Your task to perform on an android device: open app "Move to iOS" (install if not already installed), go to login, and select forgot password Image 0: 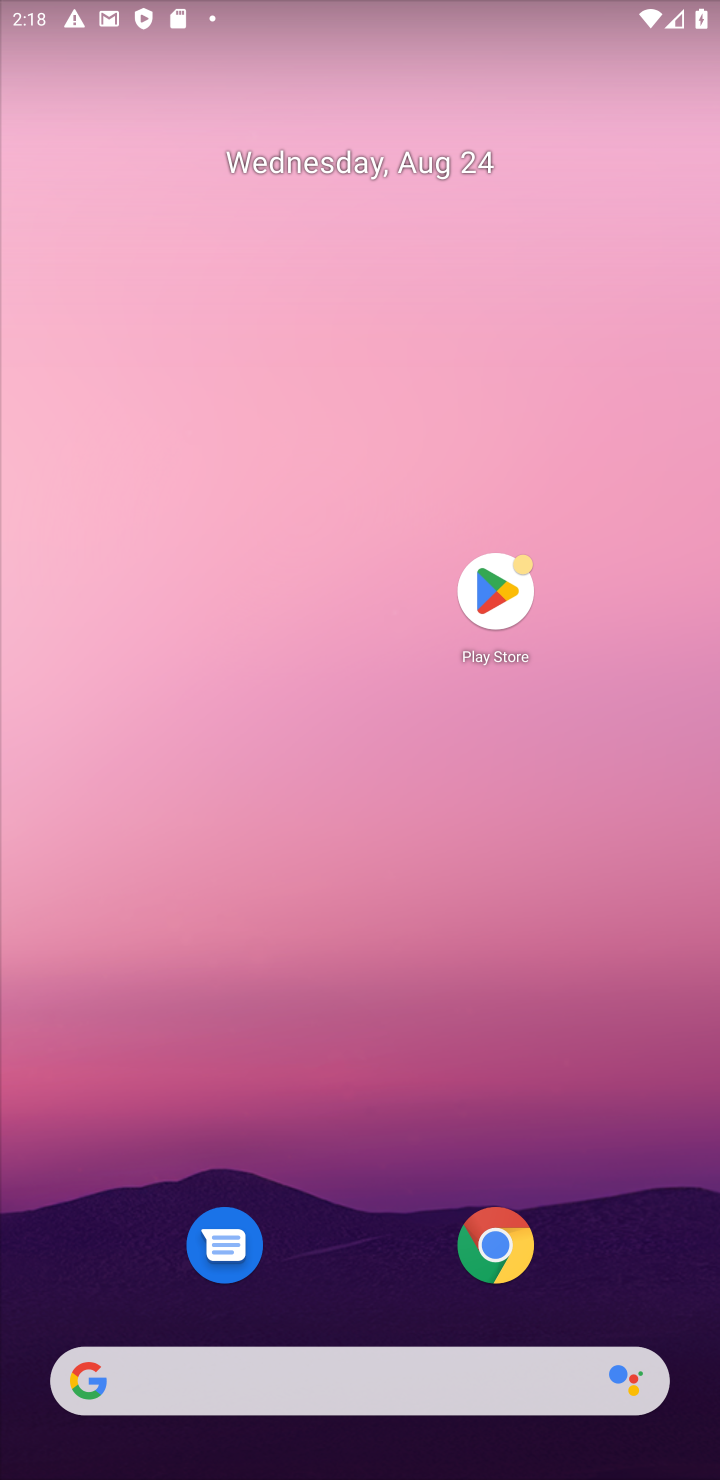
Step 0: press home button
Your task to perform on an android device: open app "Move to iOS" (install if not already installed), go to login, and select forgot password Image 1: 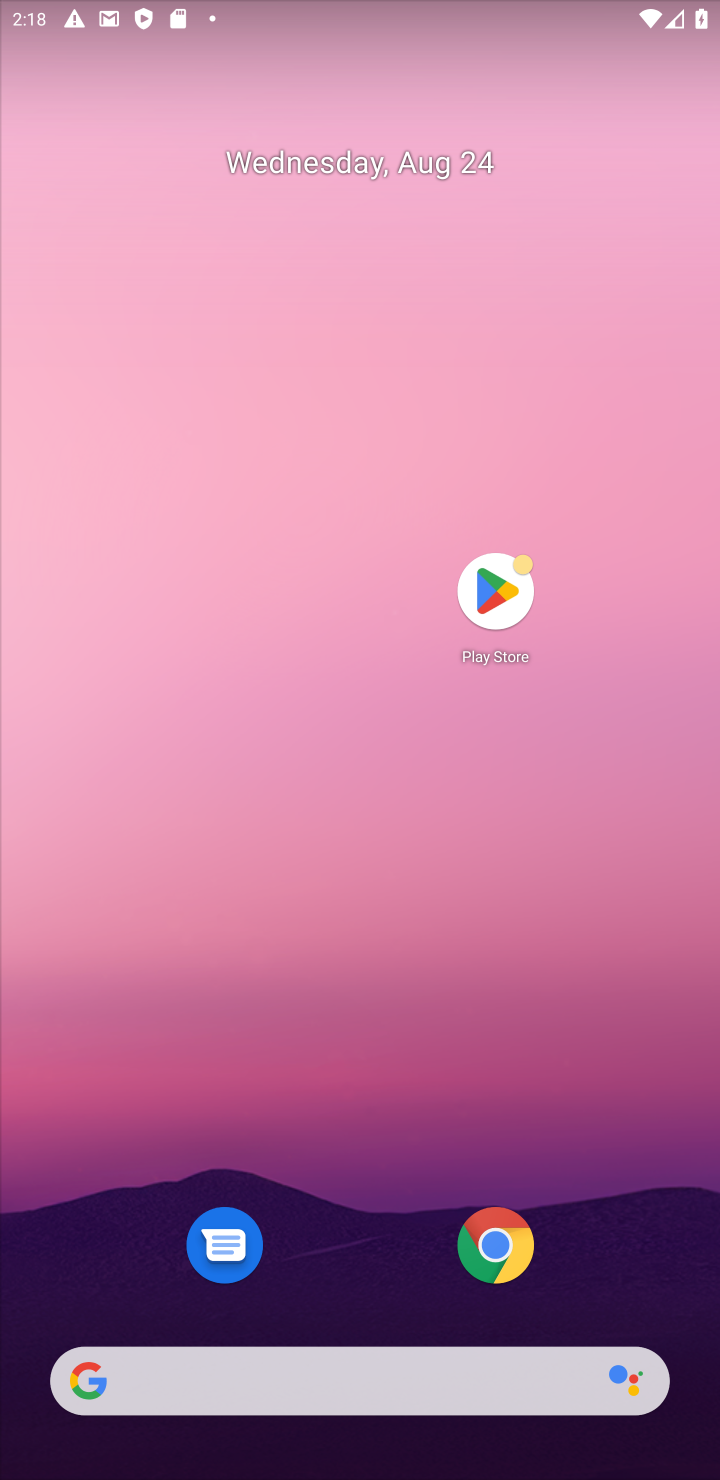
Step 1: click (487, 591)
Your task to perform on an android device: open app "Move to iOS" (install if not already installed), go to login, and select forgot password Image 2: 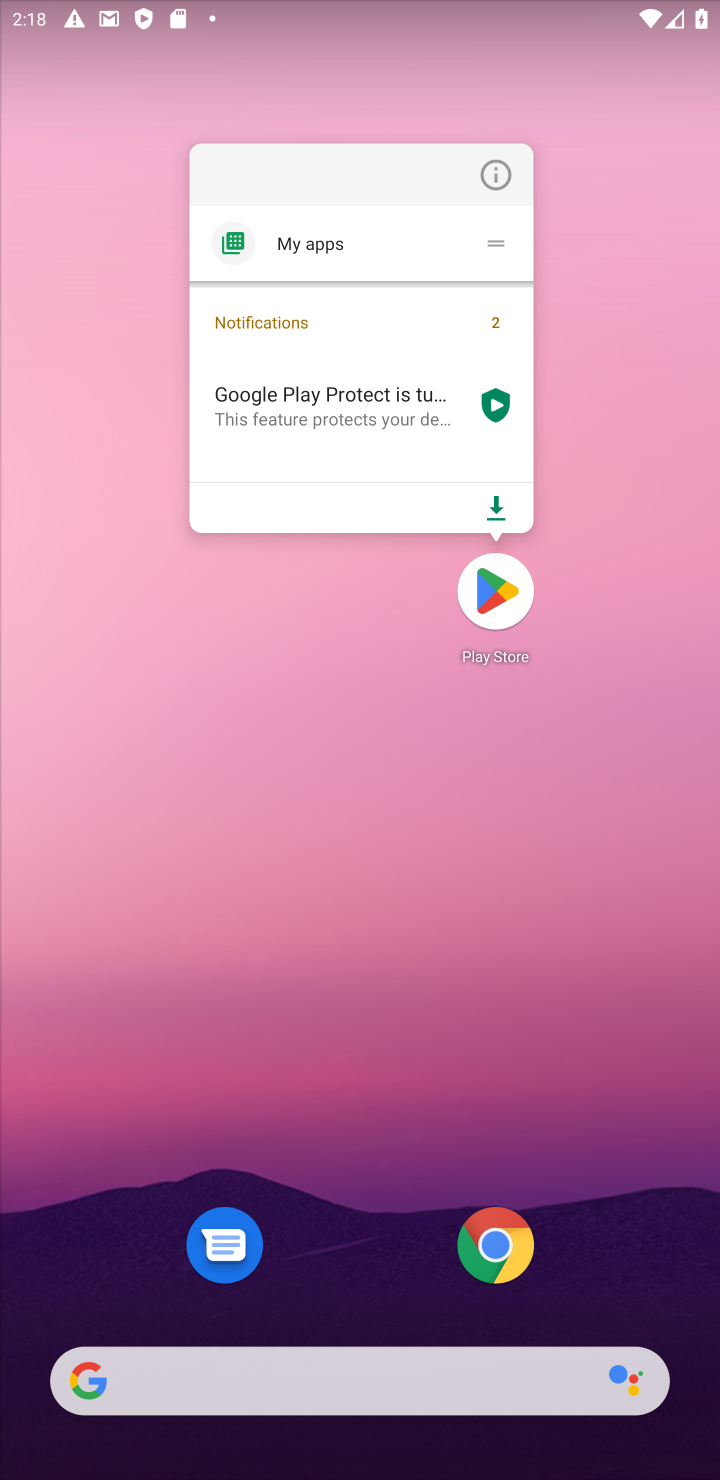
Step 2: click (487, 596)
Your task to perform on an android device: open app "Move to iOS" (install if not already installed), go to login, and select forgot password Image 3: 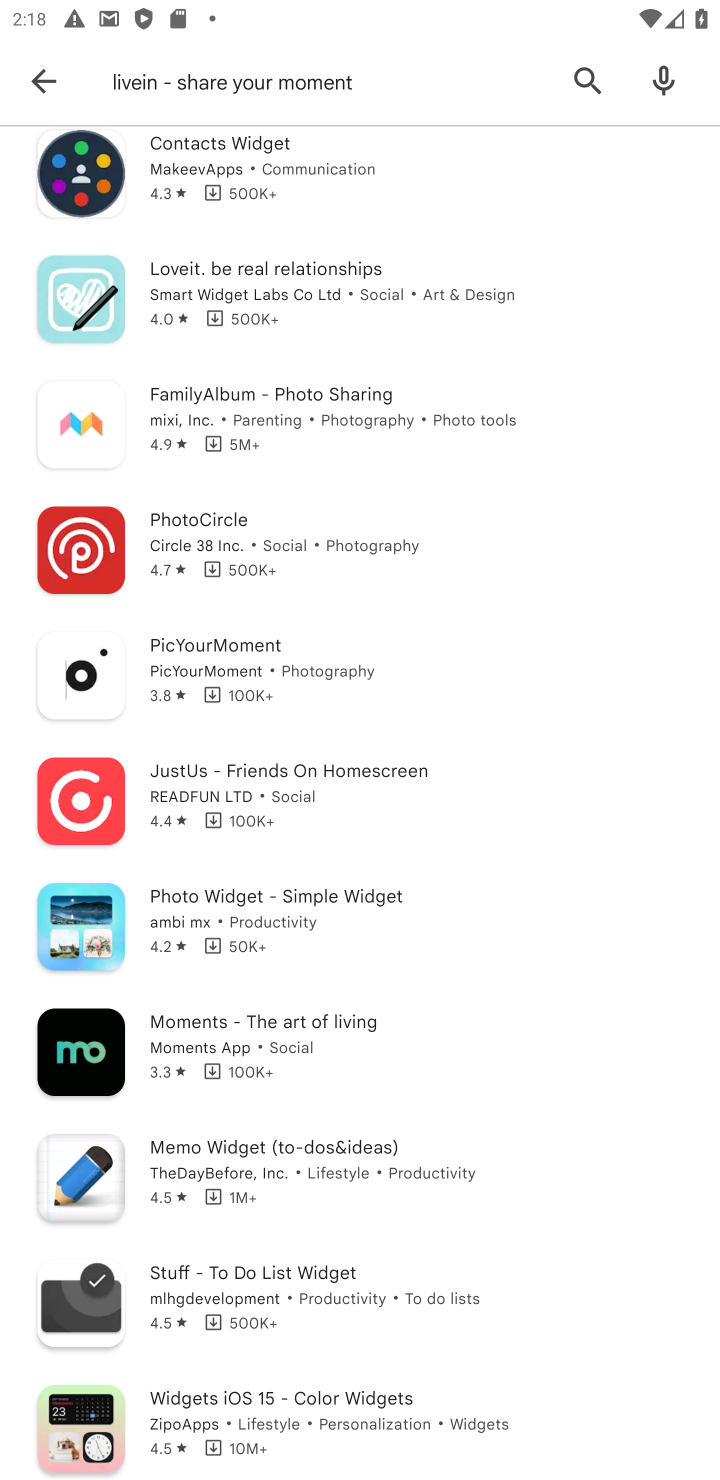
Step 3: click (580, 75)
Your task to perform on an android device: open app "Move to iOS" (install if not already installed), go to login, and select forgot password Image 4: 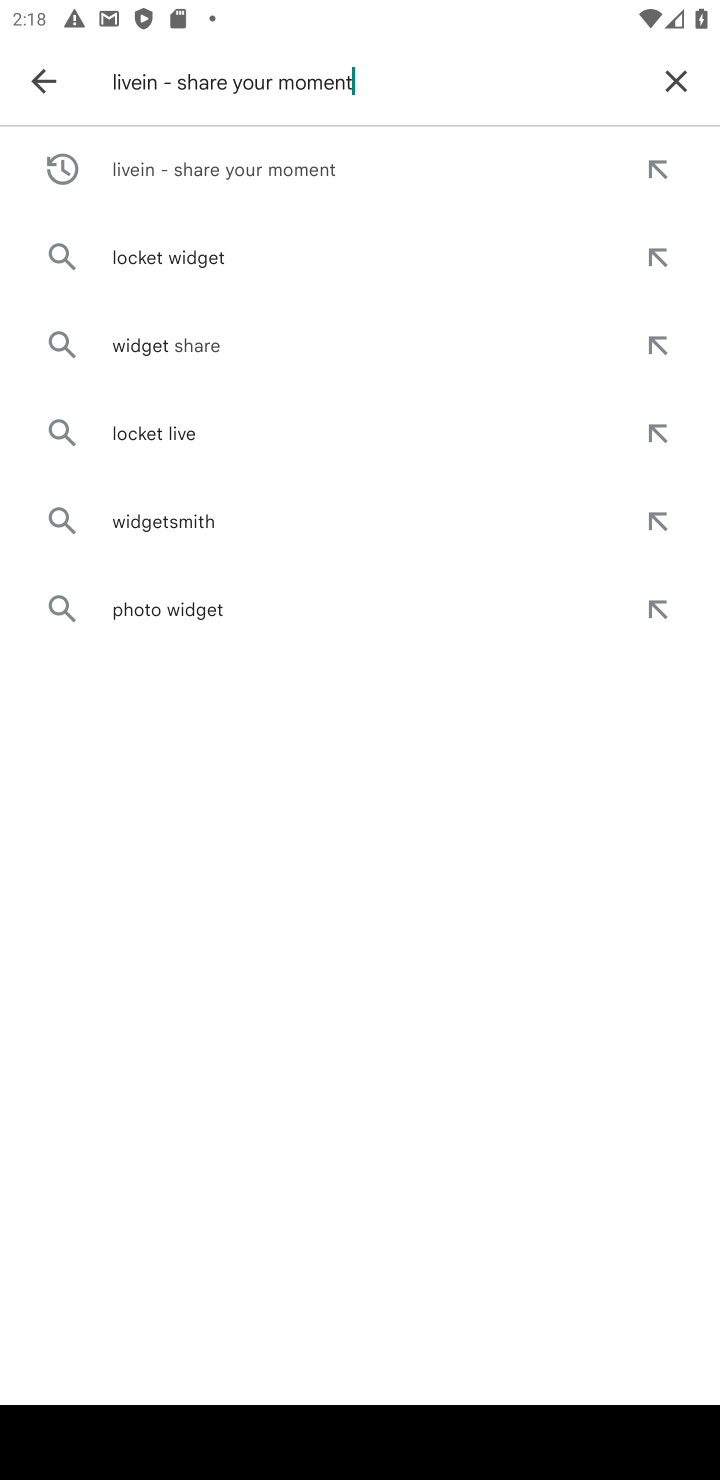
Step 4: click (670, 83)
Your task to perform on an android device: open app "Move to iOS" (install if not already installed), go to login, and select forgot password Image 5: 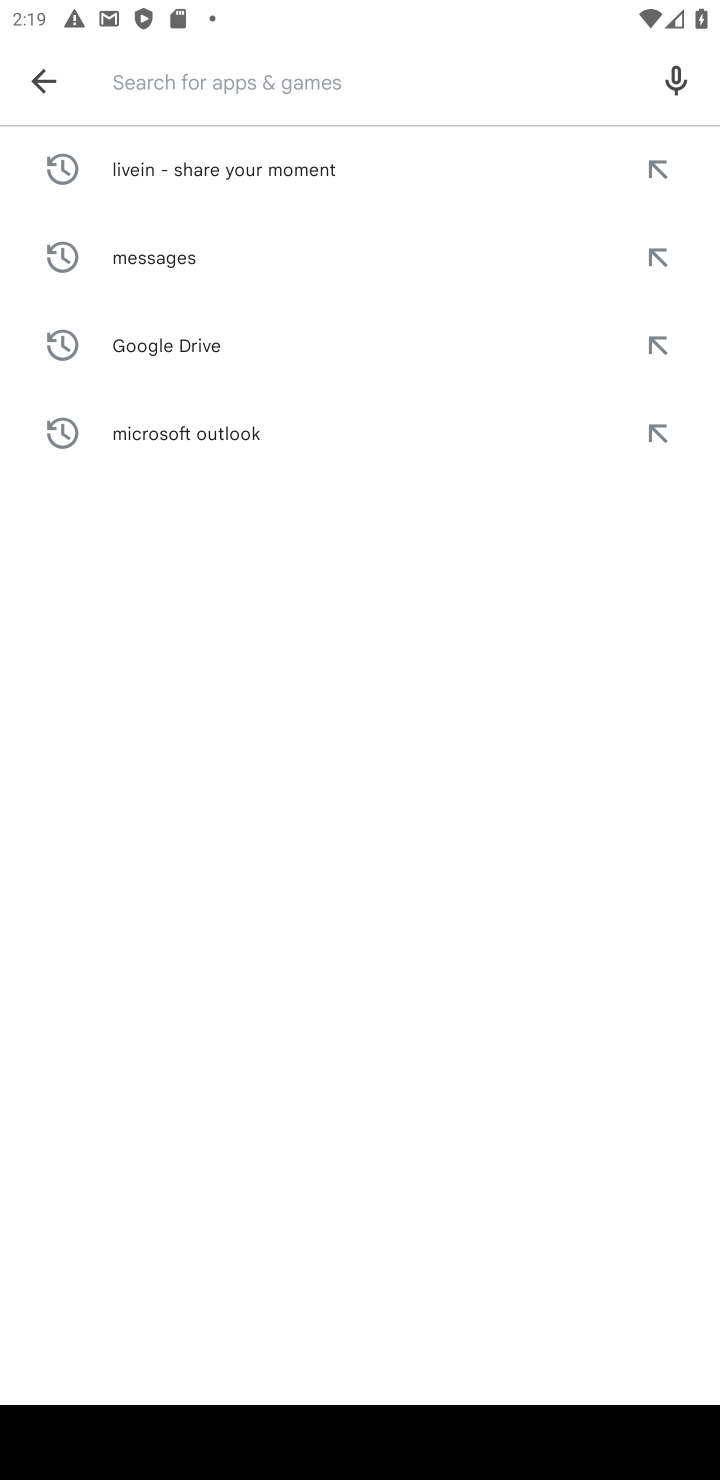
Step 5: type "Move to iOS"
Your task to perform on an android device: open app "Move to iOS" (install if not already installed), go to login, and select forgot password Image 6: 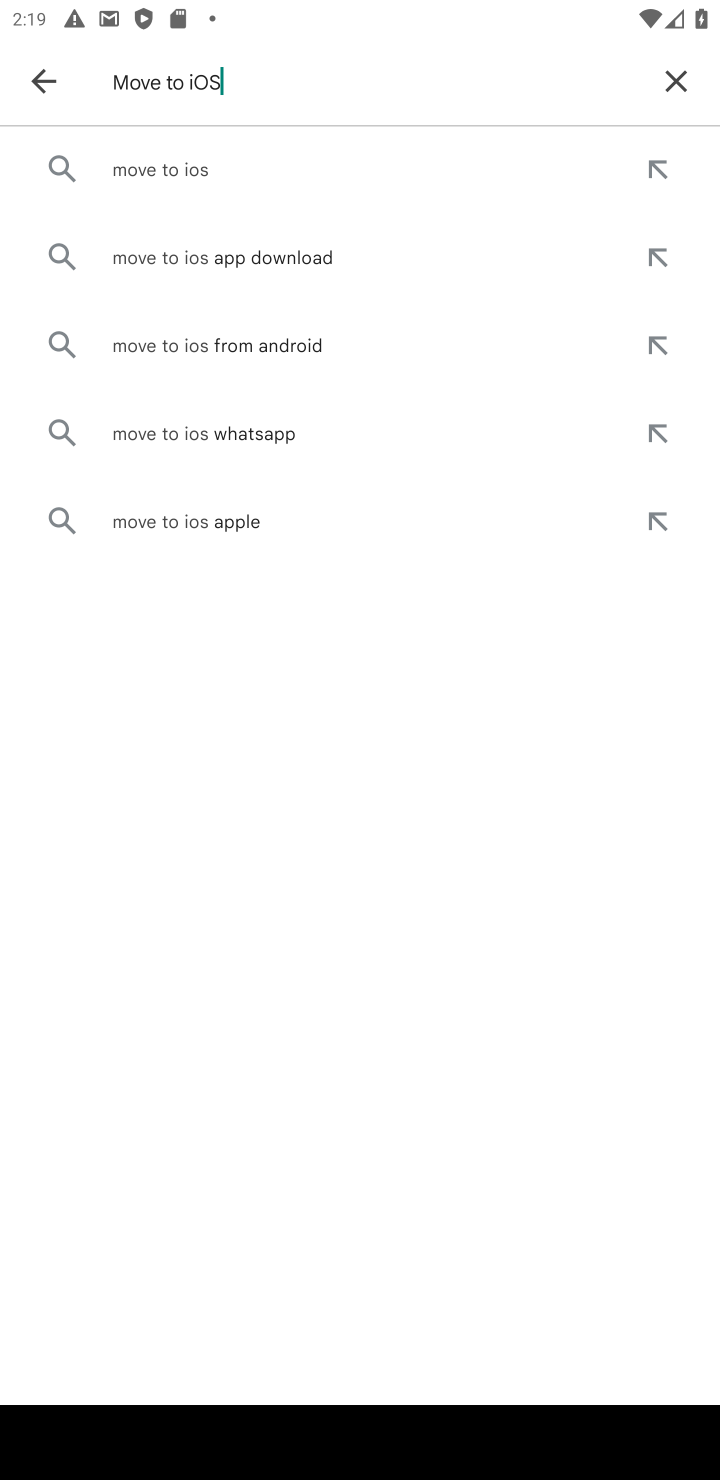
Step 6: click (184, 166)
Your task to perform on an android device: open app "Move to iOS" (install if not already installed), go to login, and select forgot password Image 7: 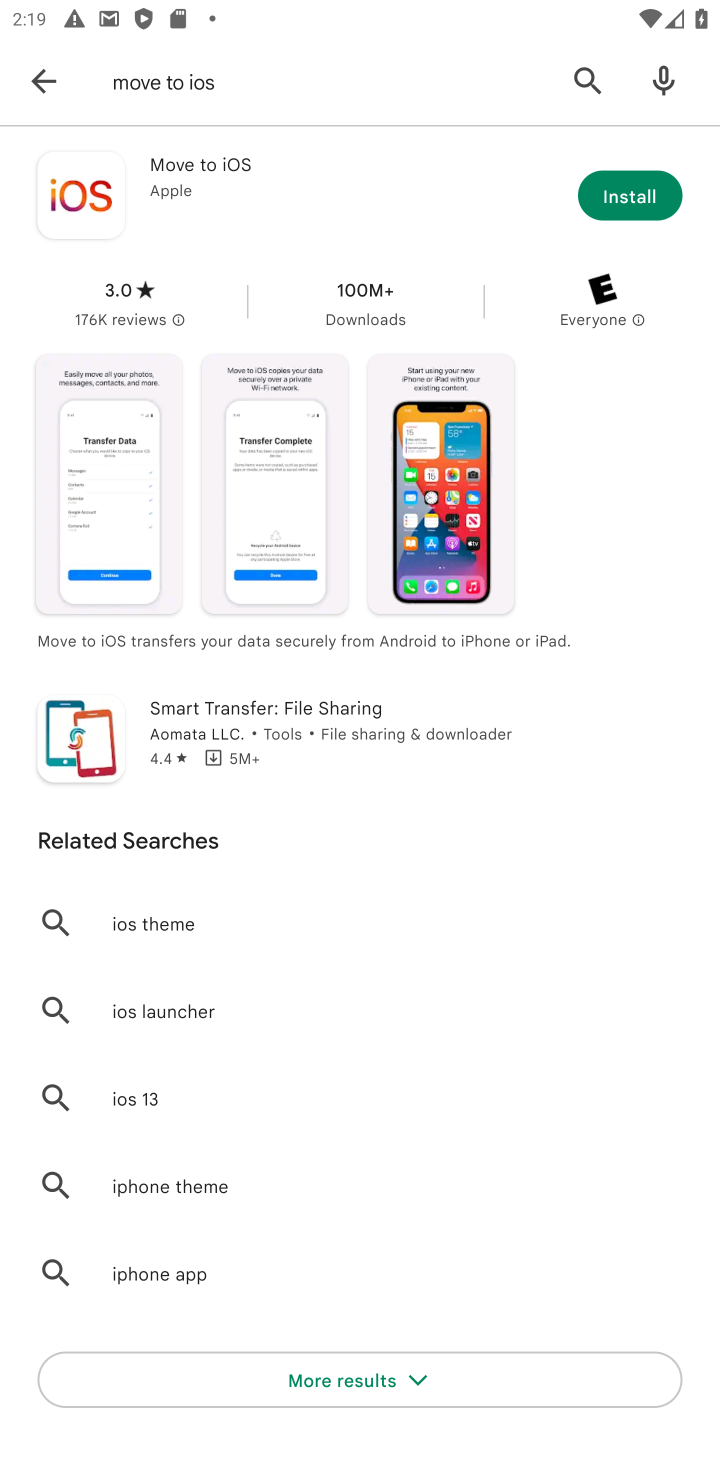
Step 7: click (620, 191)
Your task to perform on an android device: open app "Move to iOS" (install if not already installed), go to login, and select forgot password Image 8: 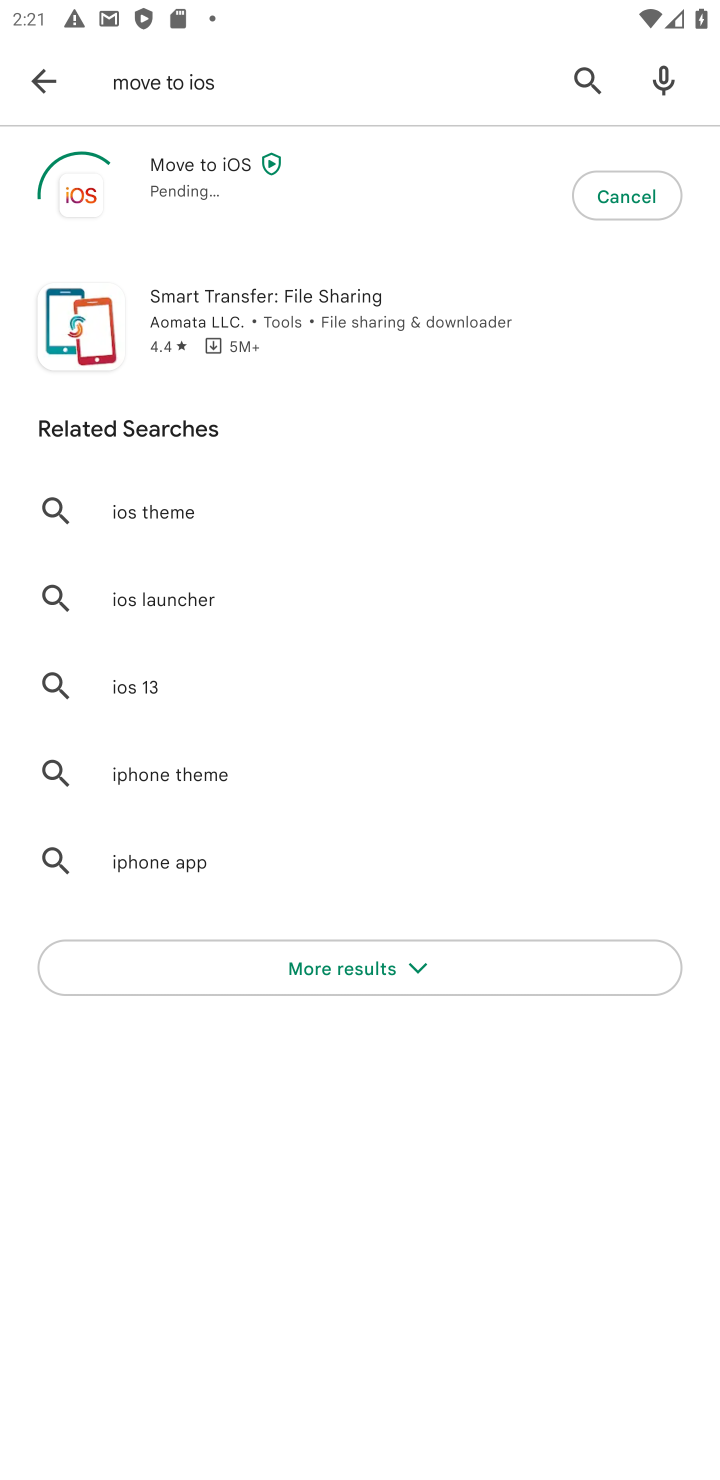
Step 8: task complete